Your task to perform on an android device: change timer sound Image 0: 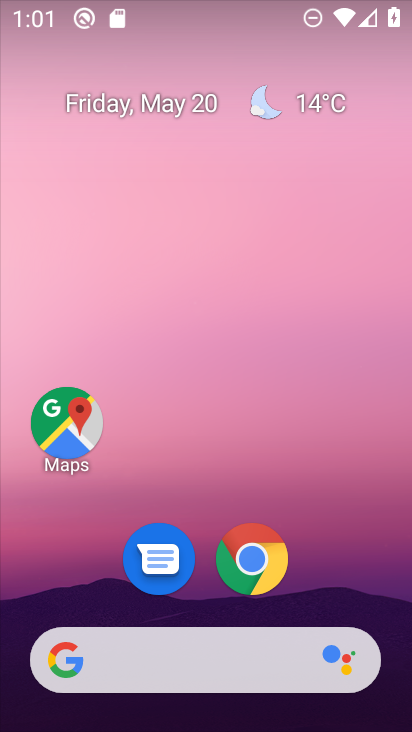
Step 0: task complete